Your task to perform on an android device: Open maps Image 0: 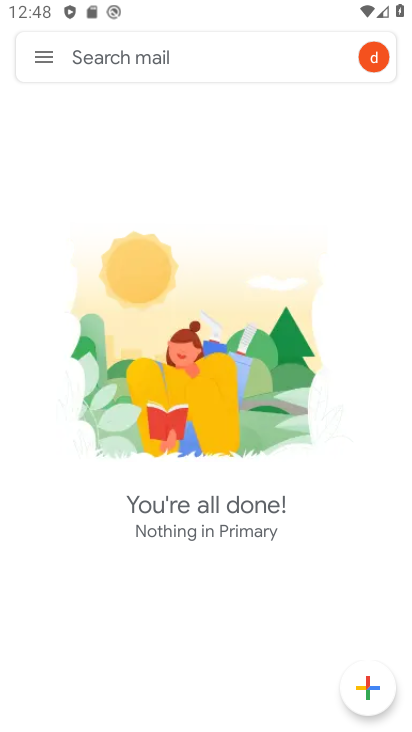
Step 0: press home button
Your task to perform on an android device: Open maps Image 1: 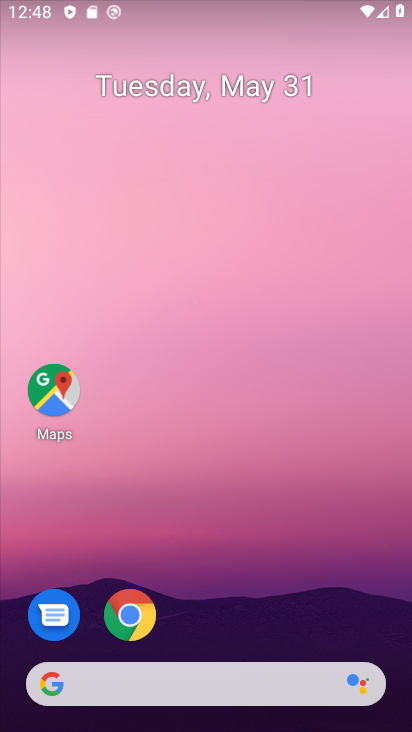
Step 1: drag from (359, 594) to (269, 157)
Your task to perform on an android device: Open maps Image 2: 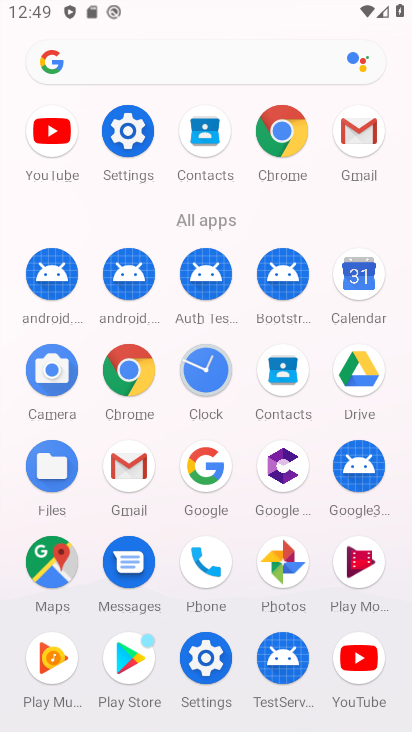
Step 2: click (45, 563)
Your task to perform on an android device: Open maps Image 3: 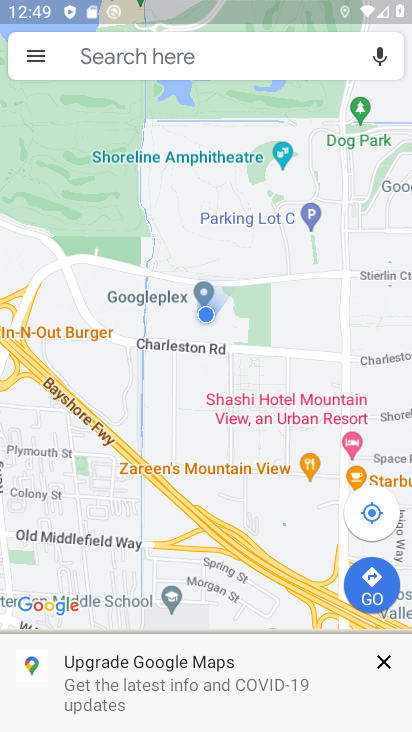
Step 3: click (399, 666)
Your task to perform on an android device: Open maps Image 4: 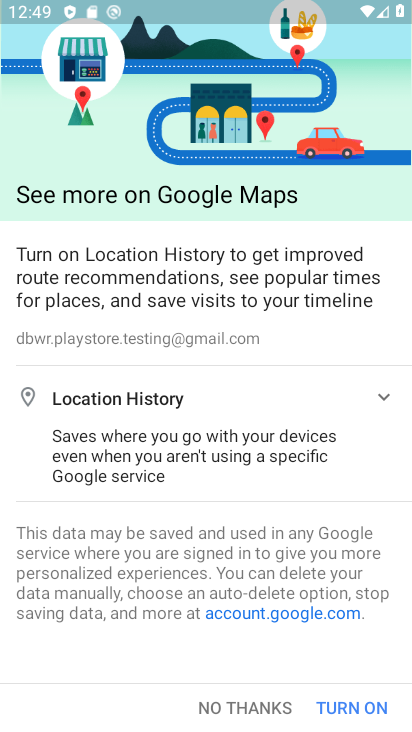
Step 4: click (278, 699)
Your task to perform on an android device: Open maps Image 5: 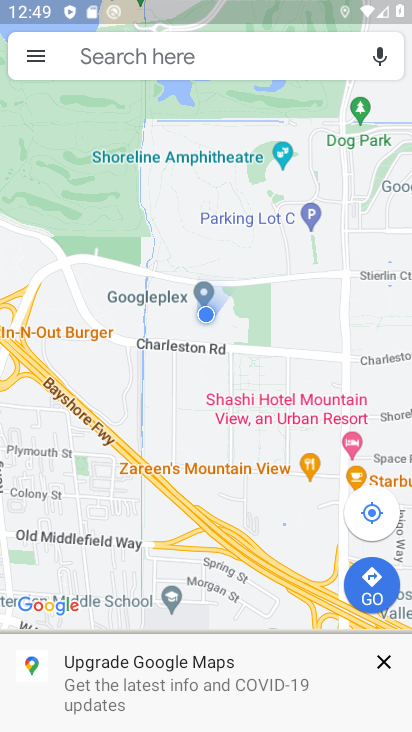
Step 5: task complete